Your task to perform on an android device: stop showing notifications on the lock screen Image 0: 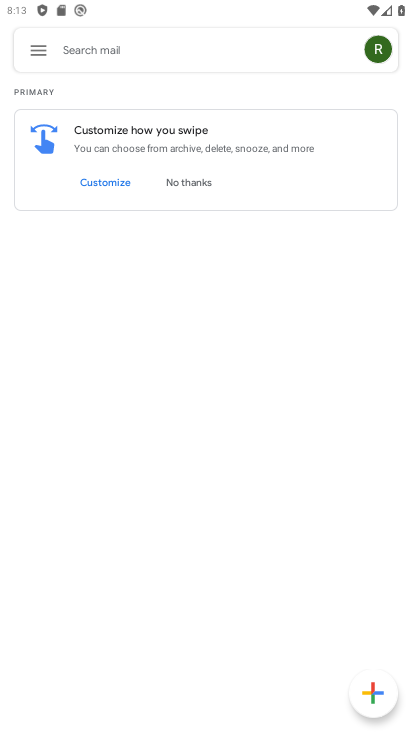
Step 0: press home button
Your task to perform on an android device: stop showing notifications on the lock screen Image 1: 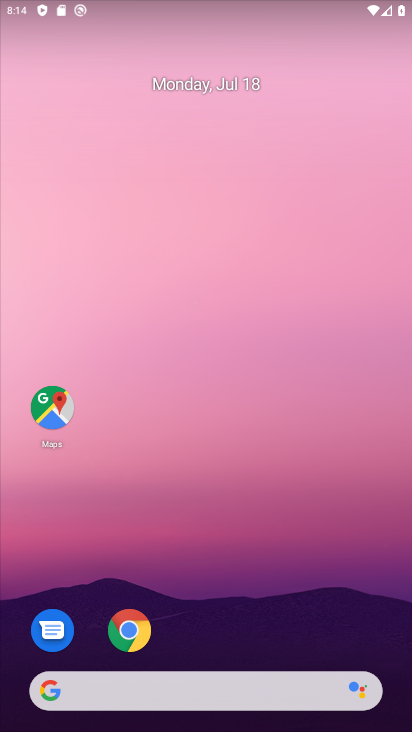
Step 1: drag from (206, 630) to (310, 216)
Your task to perform on an android device: stop showing notifications on the lock screen Image 2: 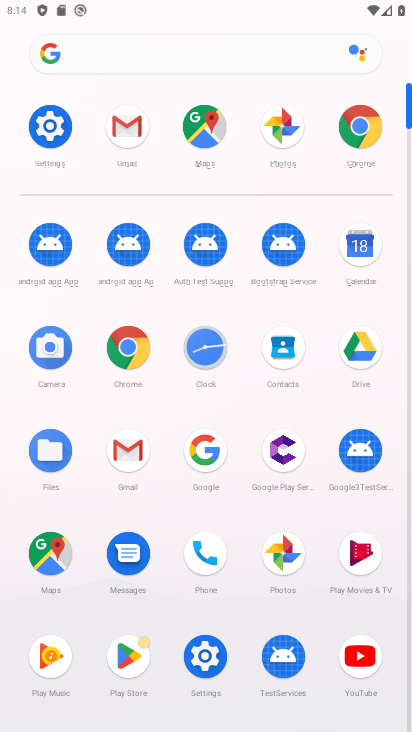
Step 2: click (61, 122)
Your task to perform on an android device: stop showing notifications on the lock screen Image 3: 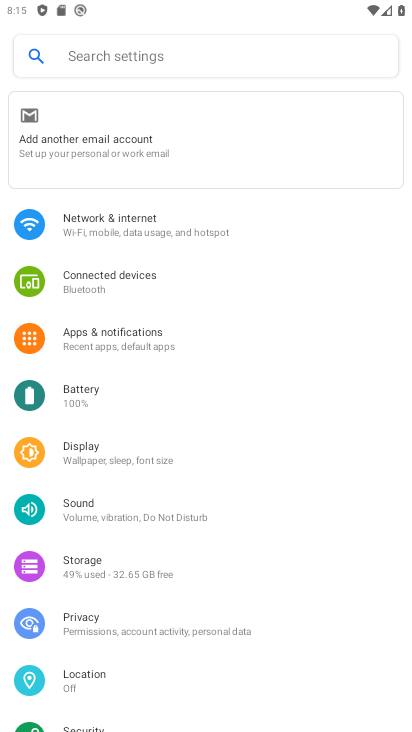
Step 3: click (123, 211)
Your task to perform on an android device: stop showing notifications on the lock screen Image 4: 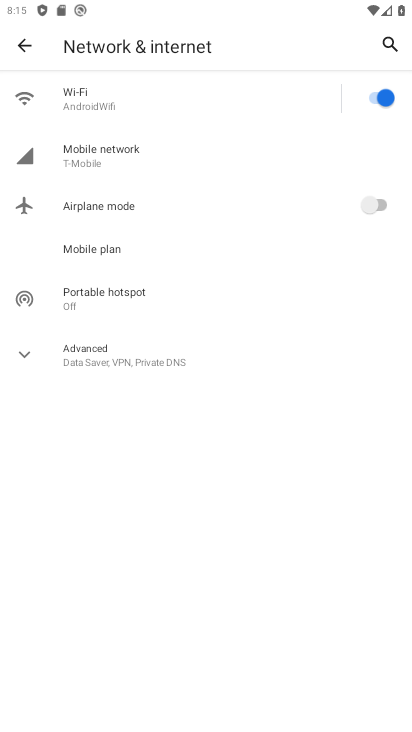
Step 4: click (25, 42)
Your task to perform on an android device: stop showing notifications on the lock screen Image 5: 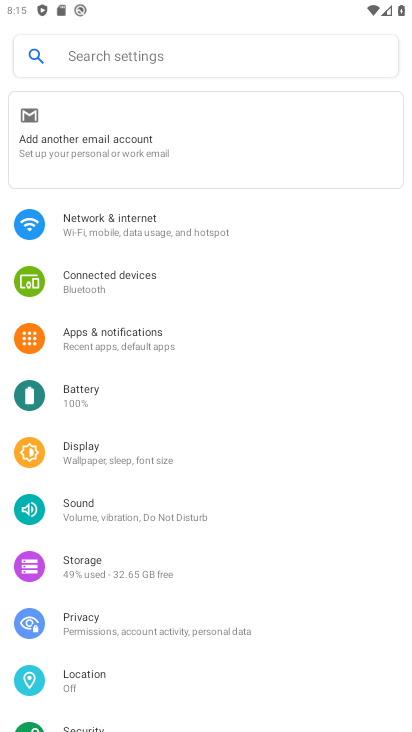
Step 5: click (210, 346)
Your task to perform on an android device: stop showing notifications on the lock screen Image 6: 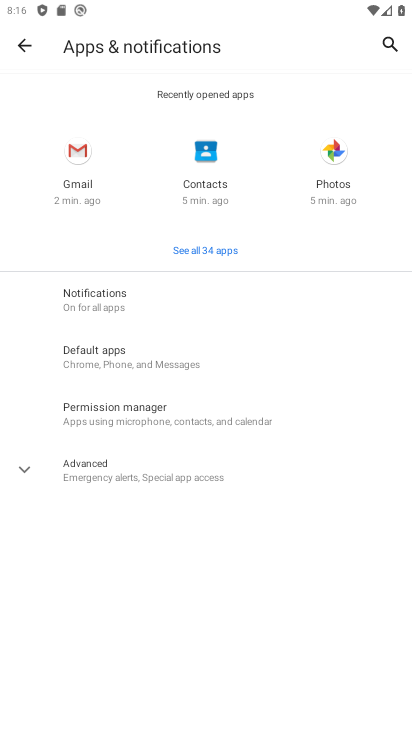
Step 6: click (126, 294)
Your task to perform on an android device: stop showing notifications on the lock screen Image 7: 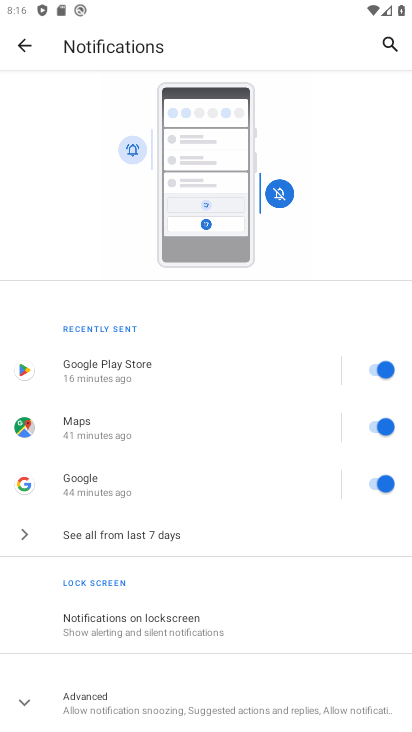
Step 7: click (178, 634)
Your task to perform on an android device: stop showing notifications on the lock screen Image 8: 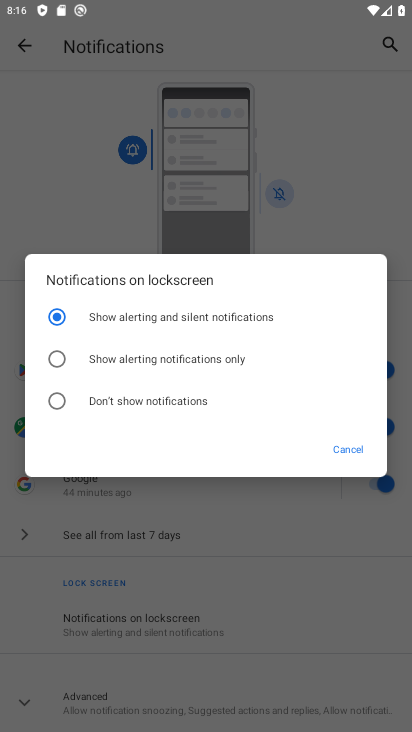
Step 8: click (137, 390)
Your task to perform on an android device: stop showing notifications on the lock screen Image 9: 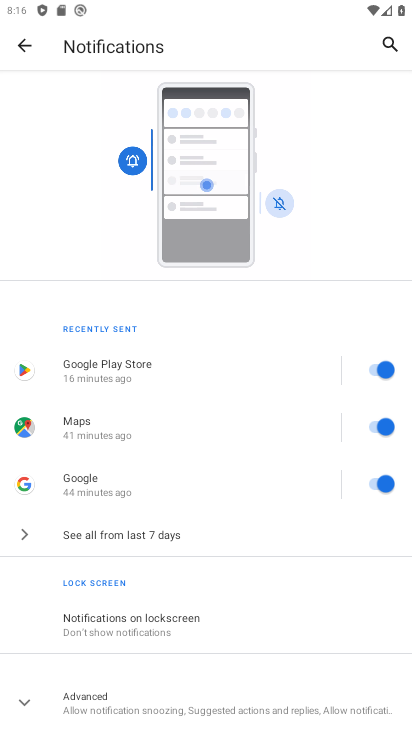
Step 9: task complete